Your task to perform on an android device: delete browsing data in the chrome app Image 0: 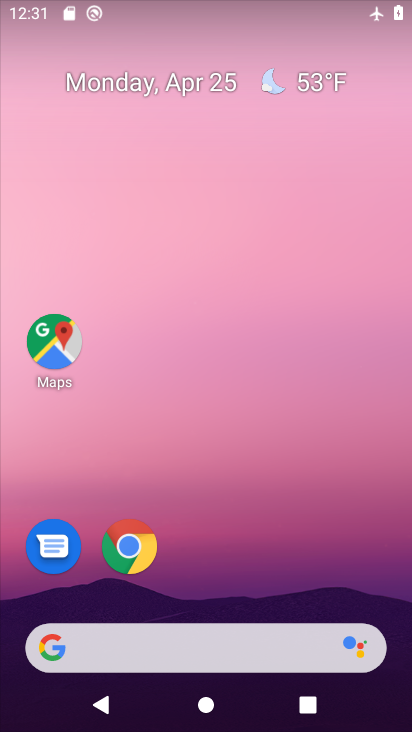
Step 0: drag from (270, 514) to (246, 234)
Your task to perform on an android device: delete browsing data in the chrome app Image 1: 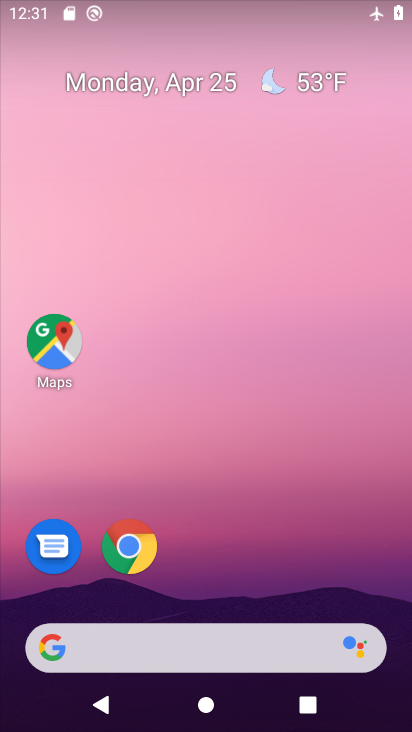
Step 1: drag from (238, 577) to (234, 51)
Your task to perform on an android device: delete browsing data in the chrome app Image 2: 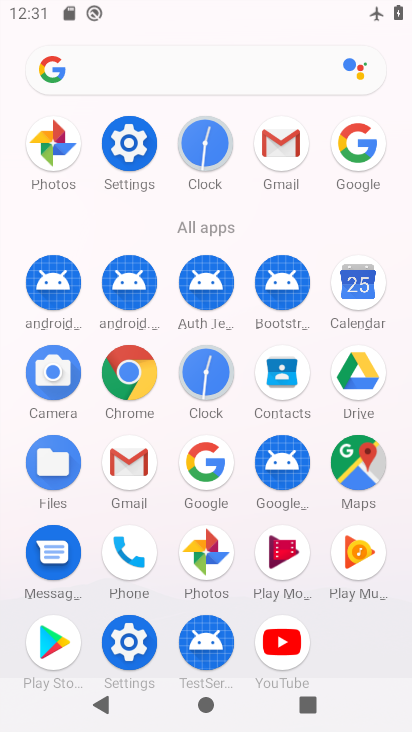
Step 2: click (134, 384)
Your task to perform on an android device: delete browsing data in the chrome app Image 3: 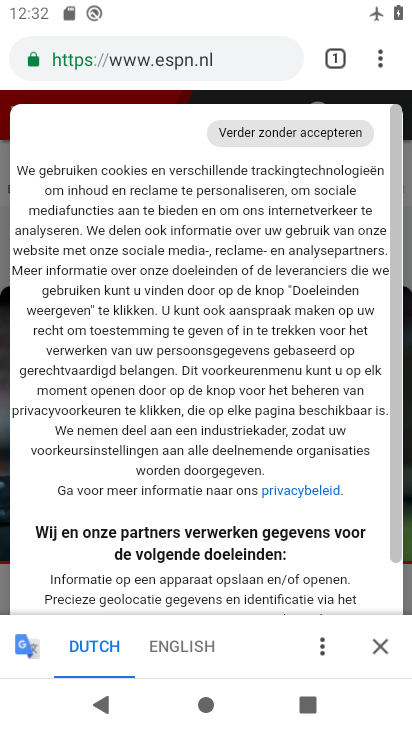
Step 3: drag from (375, 56) to (247, 569)
Your task to perform on an android device: delete browsing data in the chrome app Image 4: 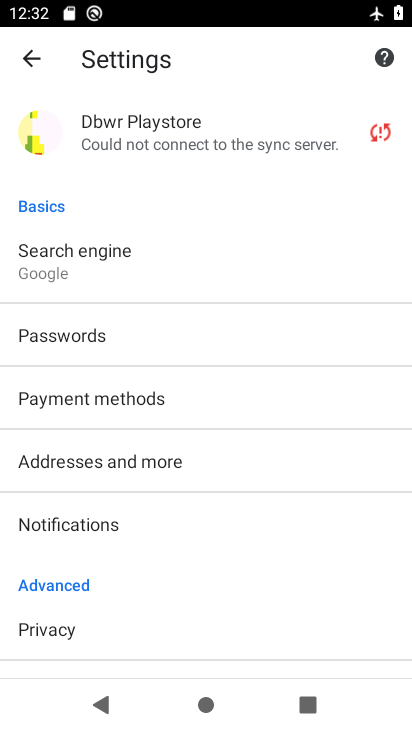
Step 4: drag from (226, 569) to (166, 181)
Your task to perform on an android device: delete browsing data in the chrome app Image 5: 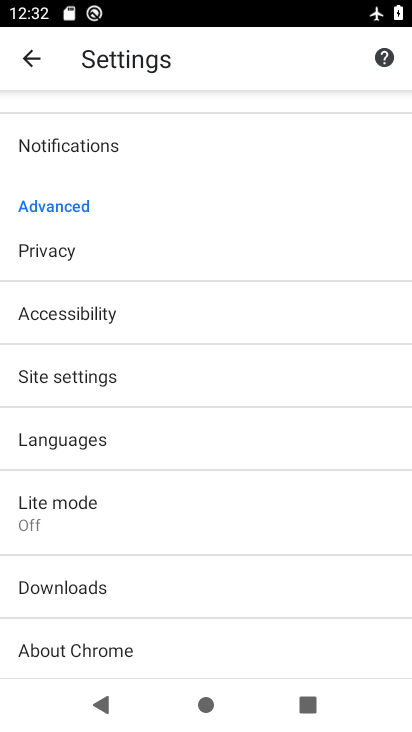
Step 5: click (115, 257)
Your task to perform on an android device: delete browsing data in the chrome app Image 6: 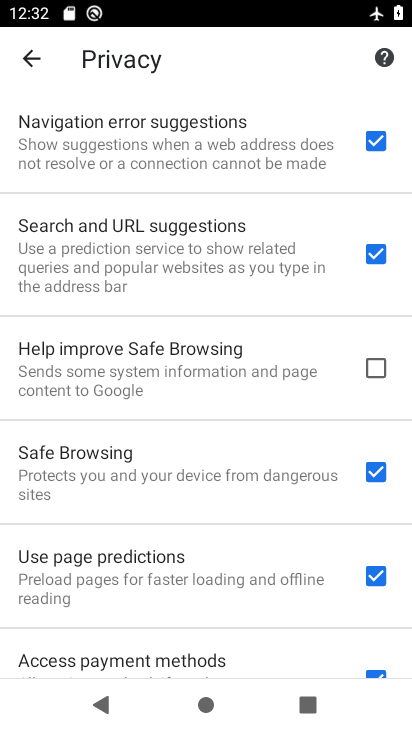
Step 6: drag from (127, 627) to (188, 24)
Your task to perform on an android device: delete browsing data in the chrome app Image 7: 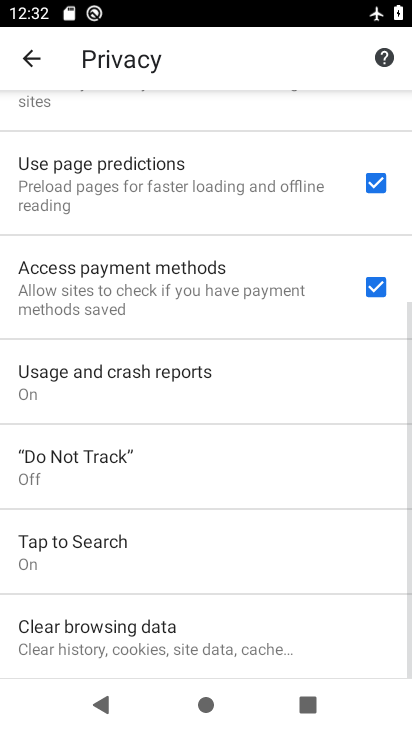
Step 7: drag from (272, 603) to (251, 235)
Your task to perform on an android device: delete browsing data in the chrome app Image 8: 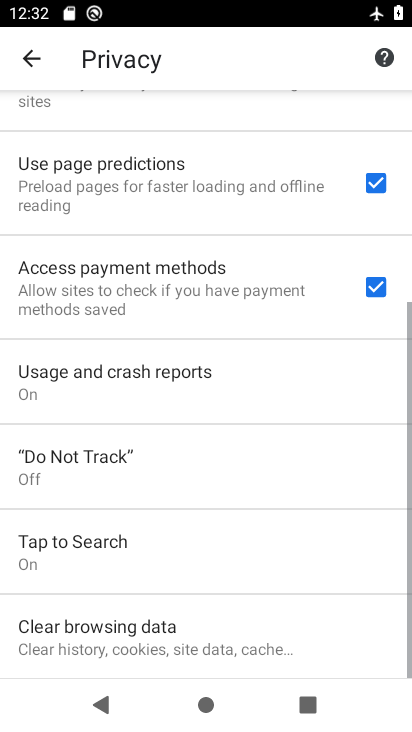
Step 8: click (246, 650)
Your task to perform on an android device: delete browsing data in the chrome app Image 9: 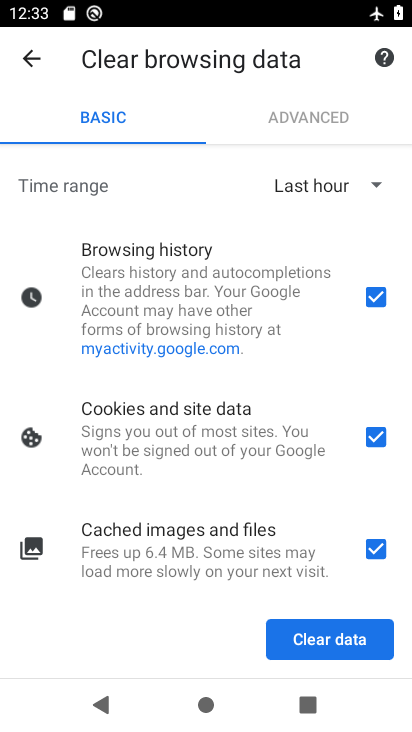
Step 9: click (303, 639)
Your task to perform on an android device: delete browsing data in the chrome app Image 10: 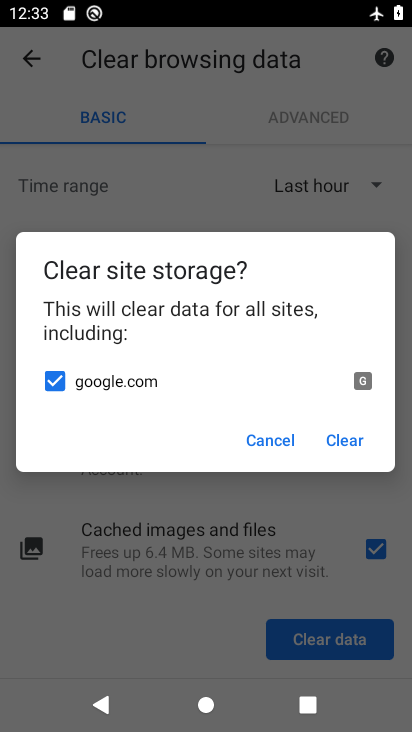
Step 10: click (352, 445)
Your task to perform on an android device: delete browsing data in the chrome app Image 11: 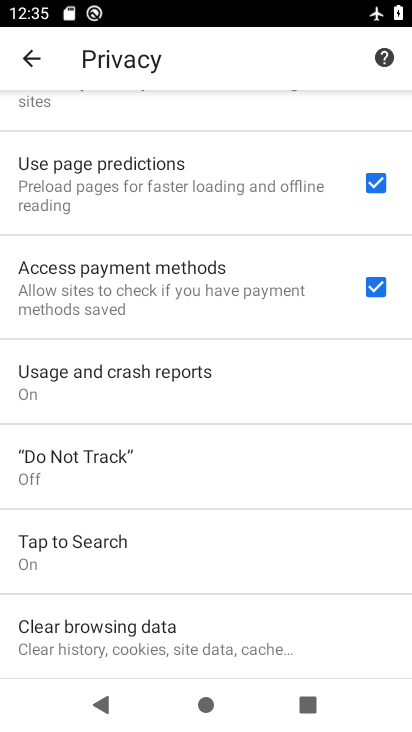
Step 11: task complete